Your task to perform on an android device: turn on the 24-hour format for clock Image 0: 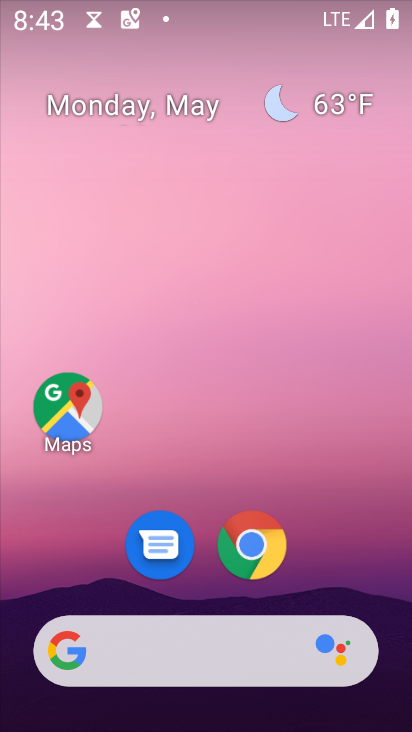
Step 0: press home button
Your task to perform on an android device: turn on the 24-hour format for clock Image 1: 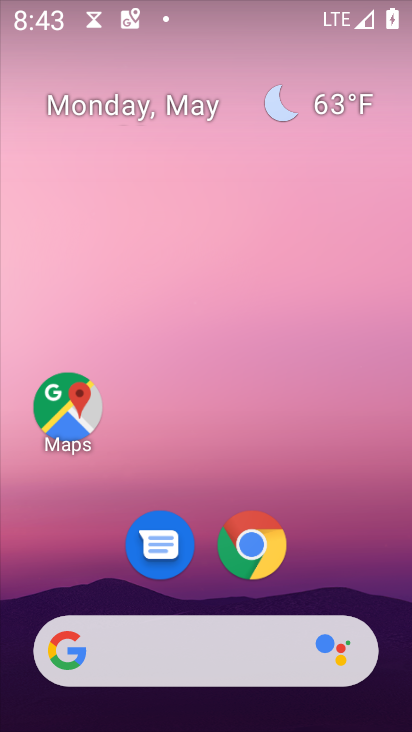
Step 1: drag from (221, 644) to (176, 53)
Your task to perform on an android device: turn on the 24-hour format for clock Image 2: 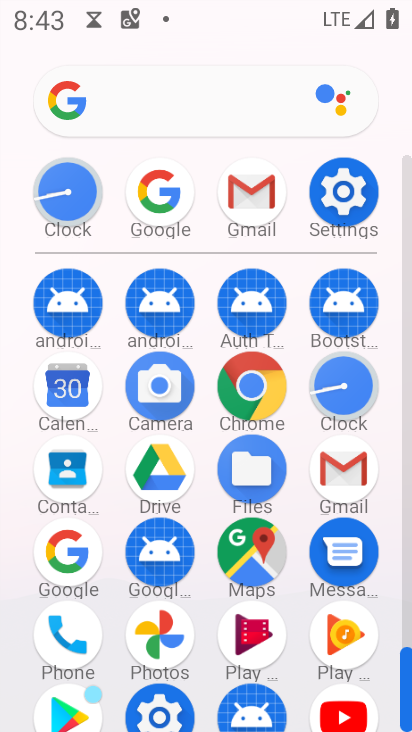
Step 2: click (341, 208)
Your task to perform on an android device: turn on the 24-hour format for clock Image 3: 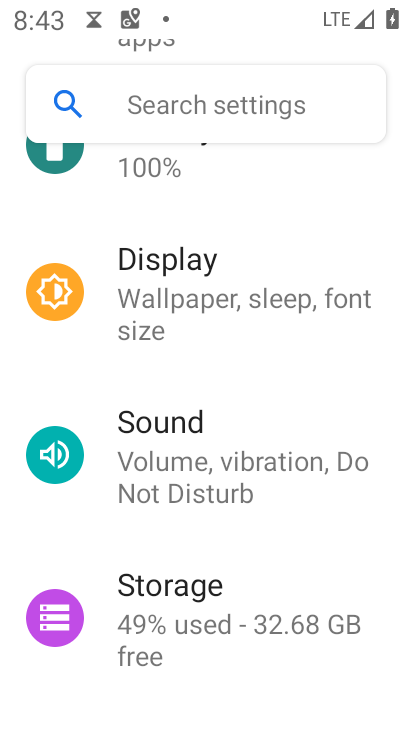
Step 3: drag from (196, 613) to (226, 92)
Your task to perform on an android device: turn on the 24-hour format for clock Image 4: 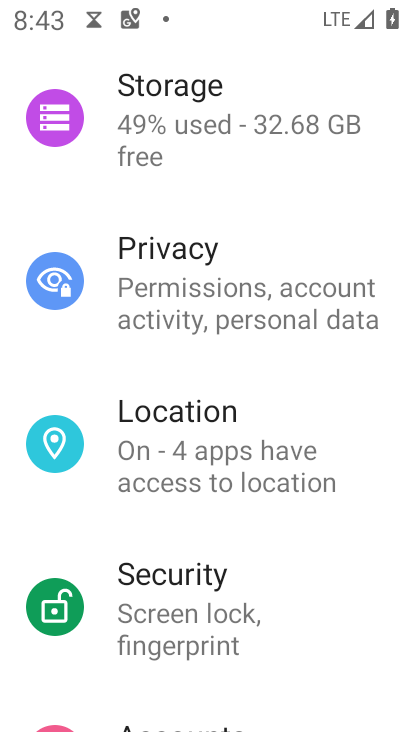
Step 4: drag from (186, 625) to (194, 78)
Your task to perform on an android device: turn on the 24-hour format for clock Image 5: 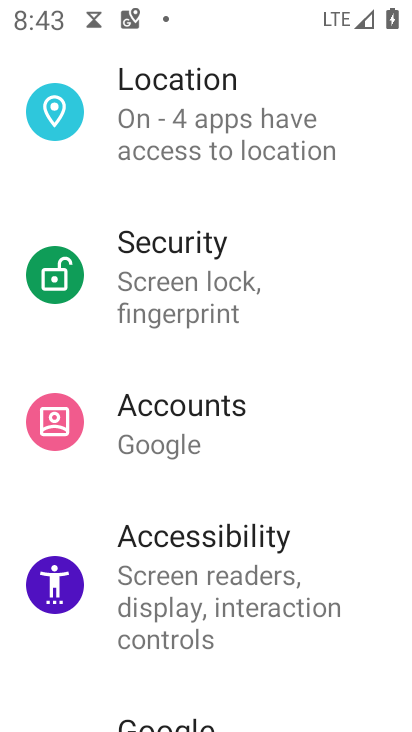
Step 5: drag from (224, 657) to (176, 115)
Your task to perform on an android device: turn on the 24-hour format for clock Image 6: 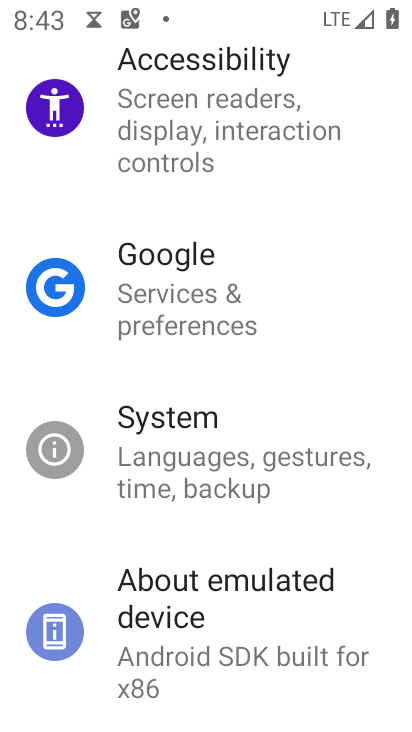
Step 6: click (175, 462)
Your task to perform on an android device: turn on the 24-hour format for clock Image 7: 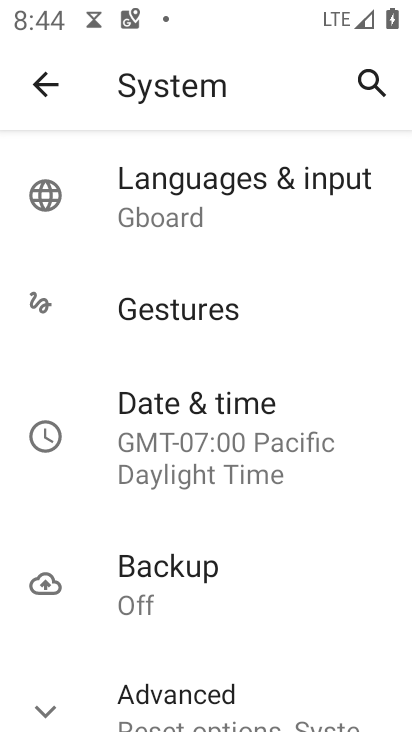
Step 7: click (186, 443)
Your task to perform on an android device: turn on the 24-hour format for clock Image 8: 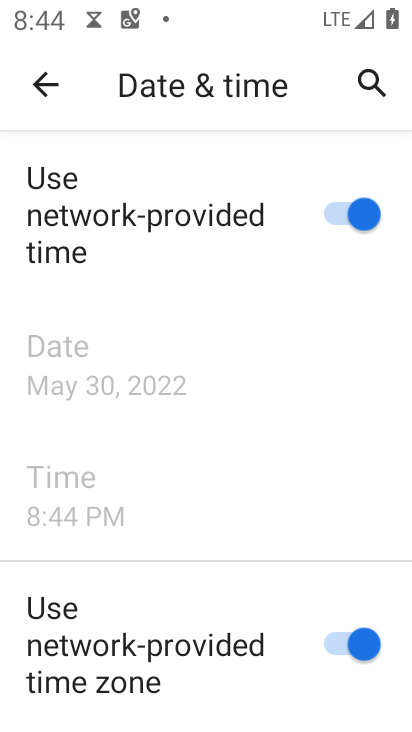
Step 8: drag from (204, 586) to (176, 111)
Your task to perform on an android device: turn on the 24-hour format for clock Image 9: 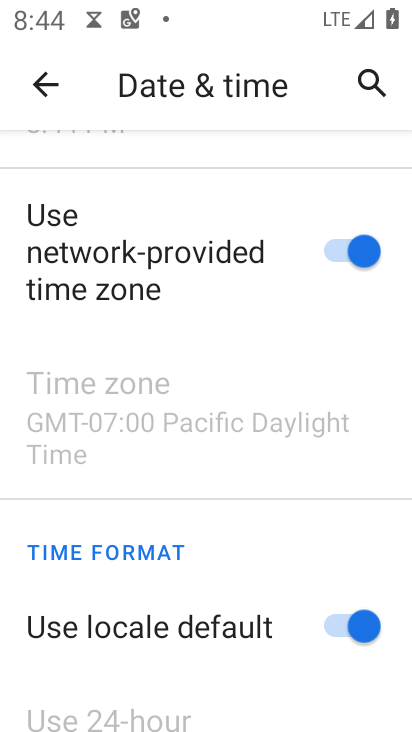
Step 9: drag from (156, 611) to (150, 83)
Your task to perform on an android device: turn on the 24-hour format for clock Image 10: 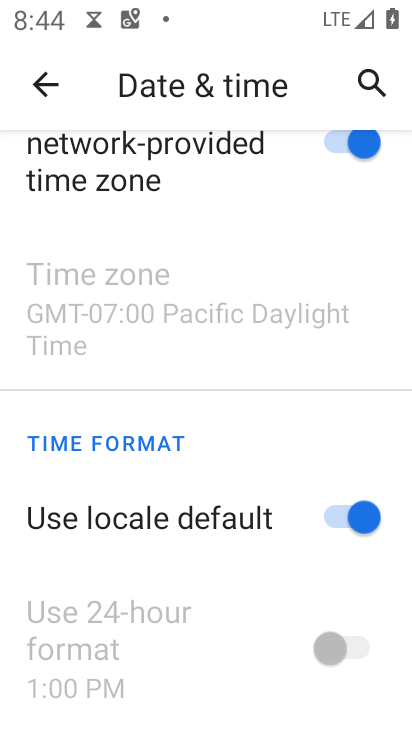
Step 10: click (335, 509)
Your task to perform on an android device: turn on the 24-hour format for clock Image 11: 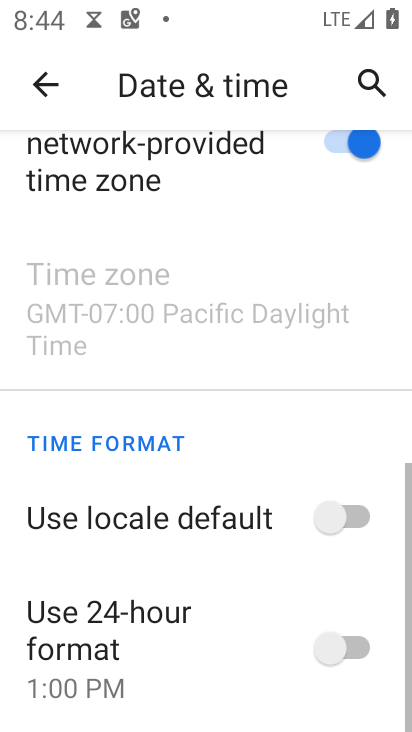
Step 11: click (350, 656)
Your task to perform on an android device: turn on the 24-hour format for clock Image 12: 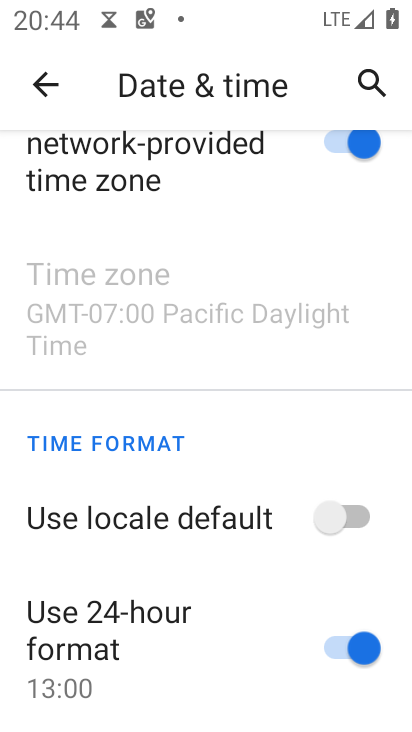
Step 12: task complete